Your task to perform on an android device: Go to calendar. Show me events next week Image 0: 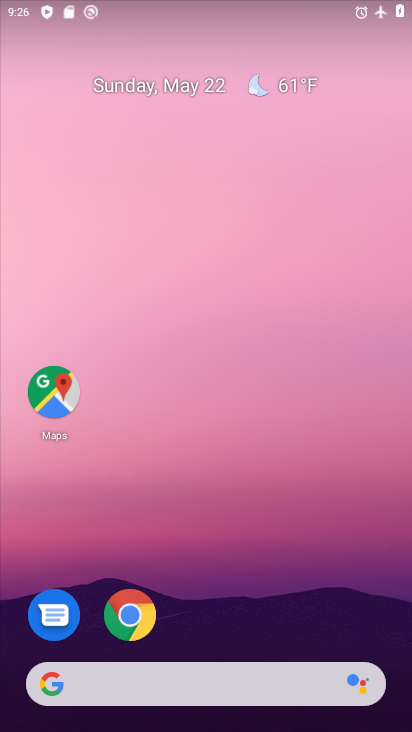
Step 0: drag from (325, 566) to (272, 170)
Your task to perform on an android device: Go to calendar. Show me events next week Image 1: 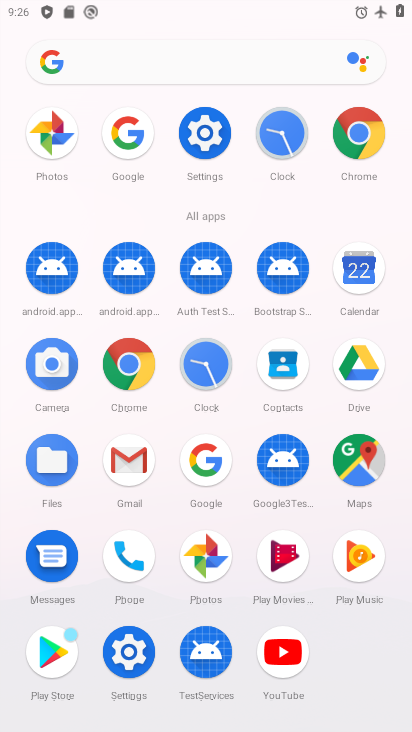
Step 1: click (351, 278)
Your task to perform on an android device: Go to calendar. Show me events next week Image 2: 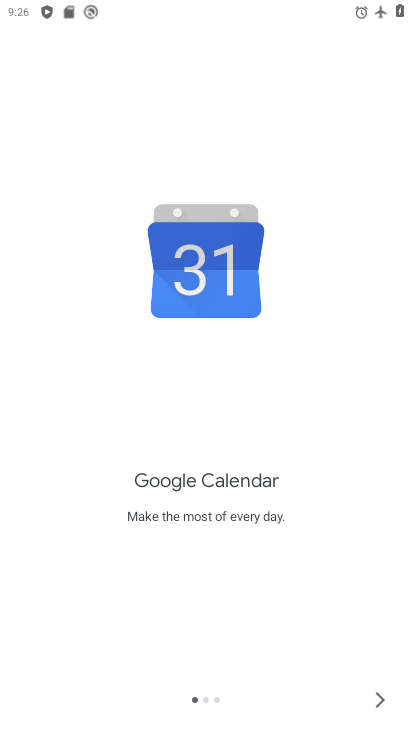
Step 2: click (367, 706)
Your task to perform on an android device: Go to calendar. Show me events next week Image 3: 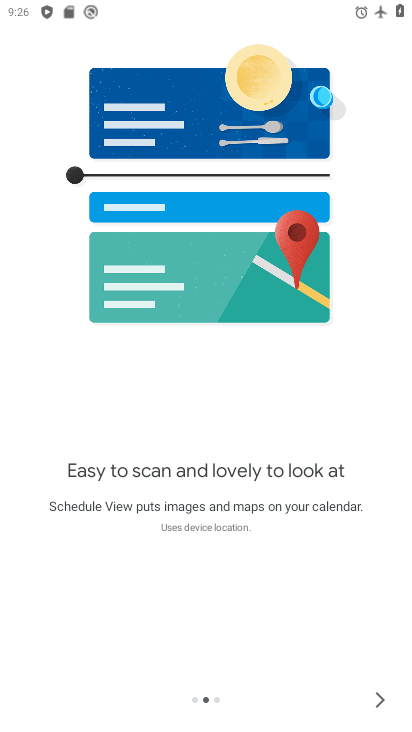
Step 3: click (380, 699)
Your task to perform on an android device: Go to calendar. Show me events next week Image 4: 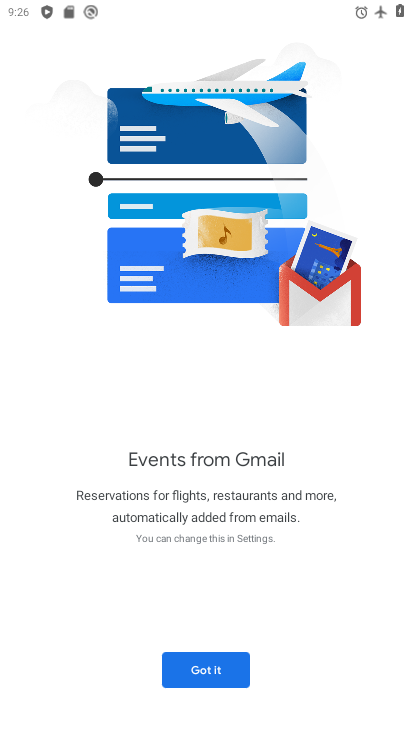
Step 4: click (226, 668)
Your task to perform on an android device: Go to calendar. Show me events next week Image 5: 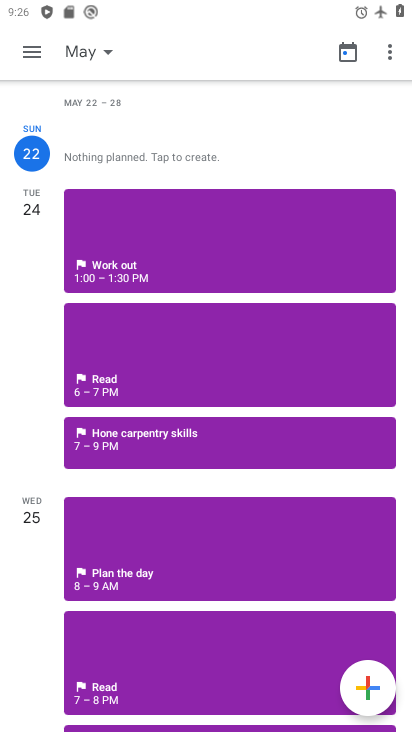
Step 5: click (93, 57)
Your task to perform on an android device: Go to calendar. Show me events next week Image 6: 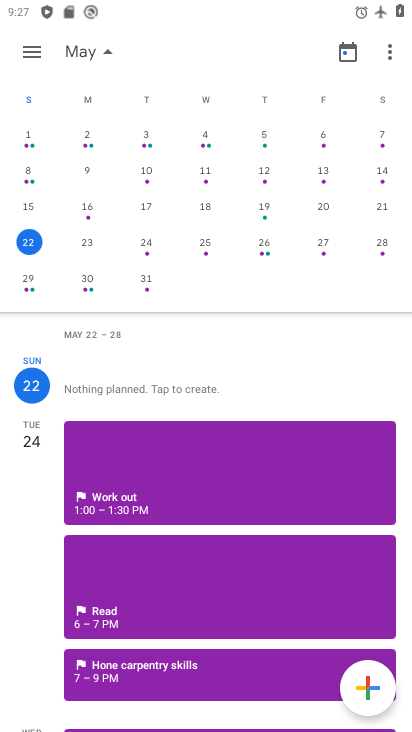
Step 6: click (85, 243)
Your task to perform on an android device: Go to calendar. Show me events next week Image 7: 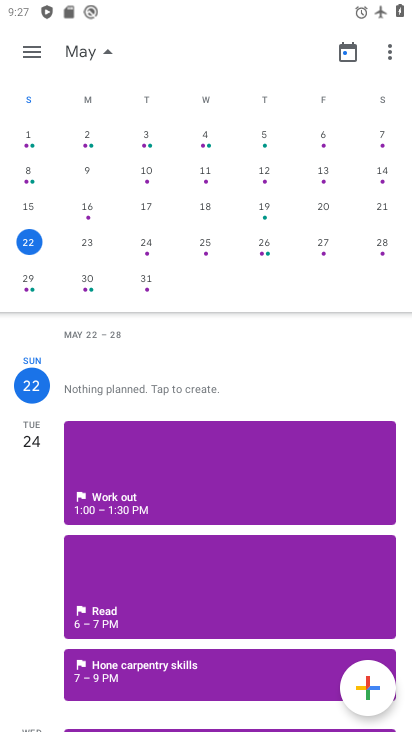
Step 7: click (28, 286)
Your task to perform on an android device: Go to calendar. Show me events next week Image 8: 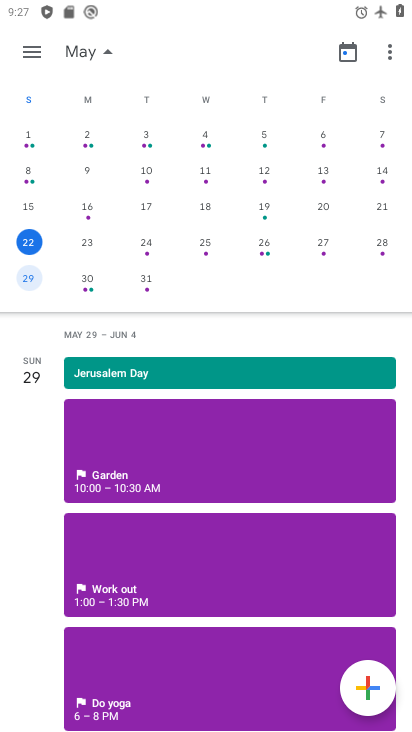
Step 8: click (89, 280)
Your task to perform on an android device: Go to calendar. Show me events next week Image 9: 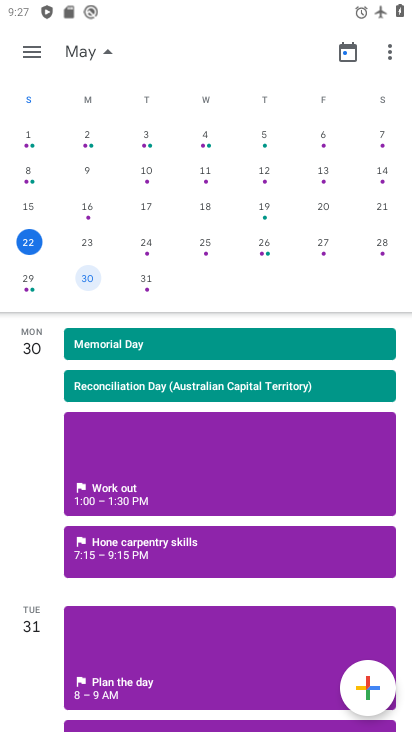
Step 9: click (151, 290)
Your task to perform on an android device: Go to calendar. Show me events next week Image 10: 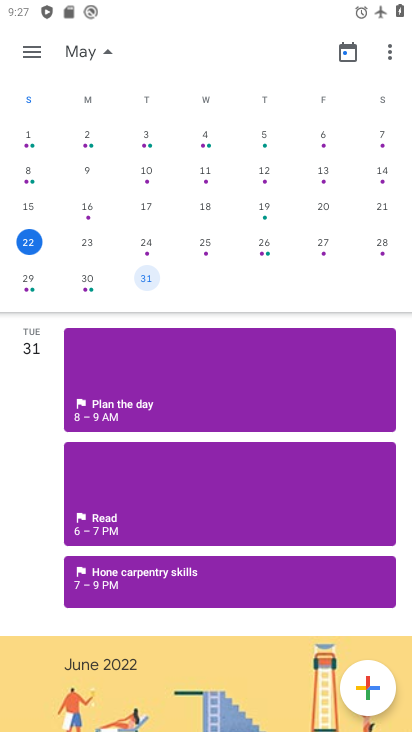
Step 10: task complete